Your task to perform on an android device: change keyboard looks Image 0: 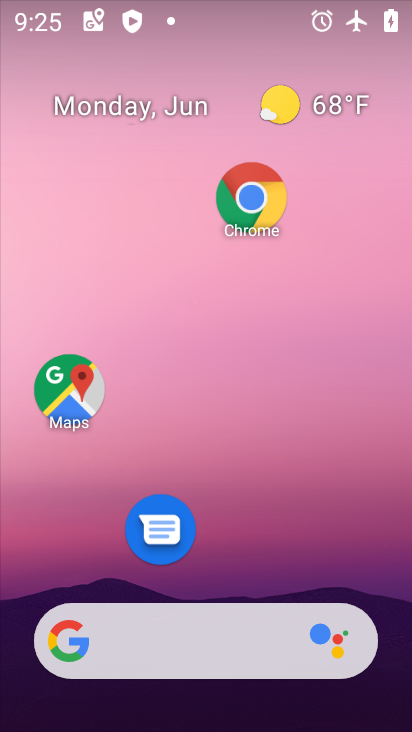
Step 0: drag from (211, 544) to (211, 134)
Your task to perform on an android device: change keyboard looks Image 1: 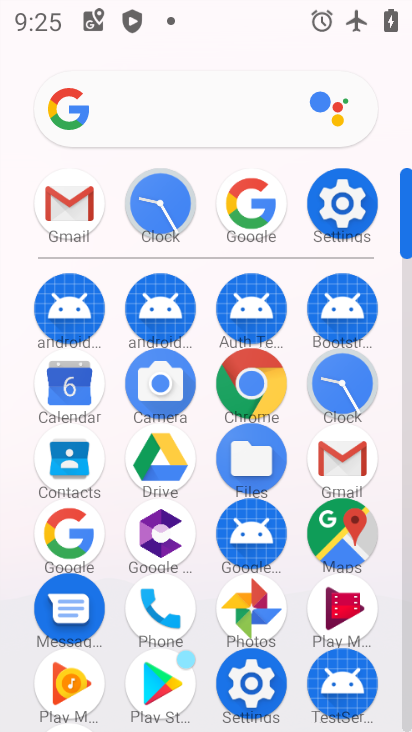
Step 1: click (316, 188)
Your task to perform on an android device: change keyboard looks Image 2: 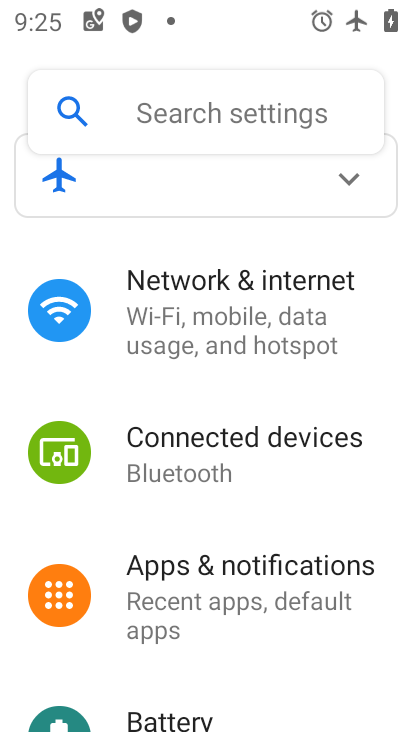
Step 2: drag from (266, 667) to (271, 262)
Your task to perform on an android device: change keyboard looks Image 3: 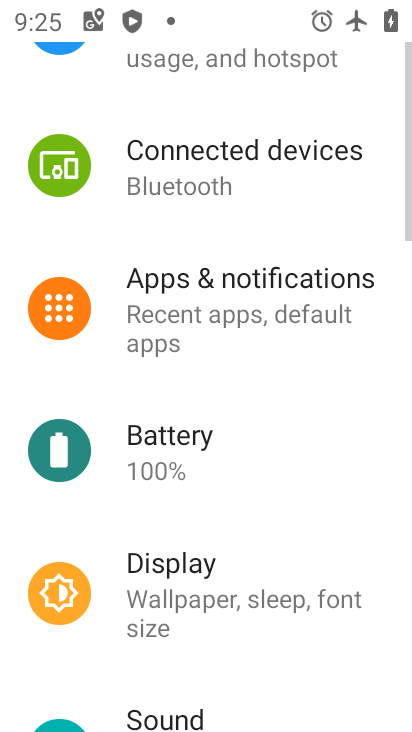
Step 3: drag from (250, 612) to (261, 235)
Your task to perform on an android device: change keyboard looks Image 4: 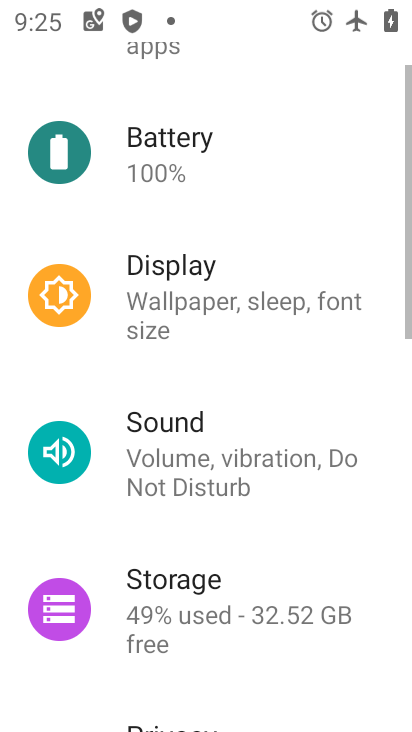
Step 4: drag from (269, 540) to (275, 186)
Your task to perform on an android device: change keyboard looks Image 5: 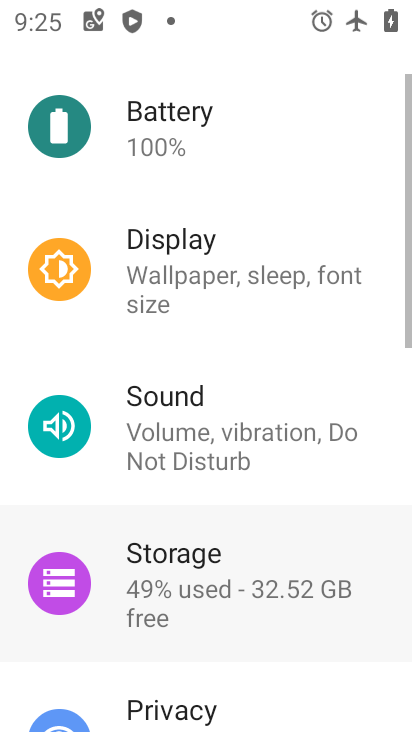
Step 5: drag from (237, 601) to (240, 224)
Your task to perform on an android device: change keyboard looks Image 6: 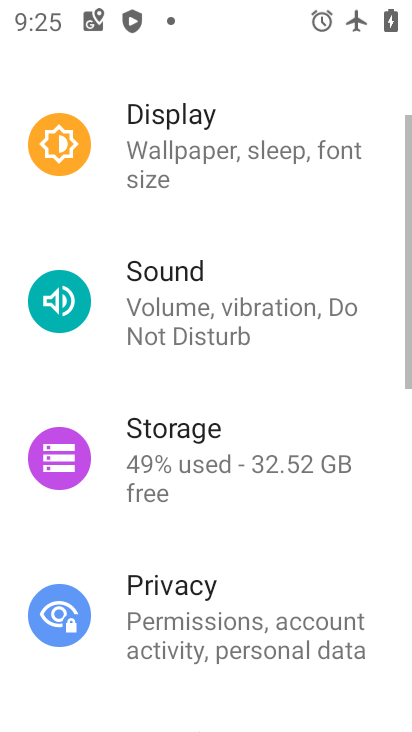
Step 6: drag from (264, 523) to (277, 246)
Your task to perform on an android device: change keyboard looks Image 7: 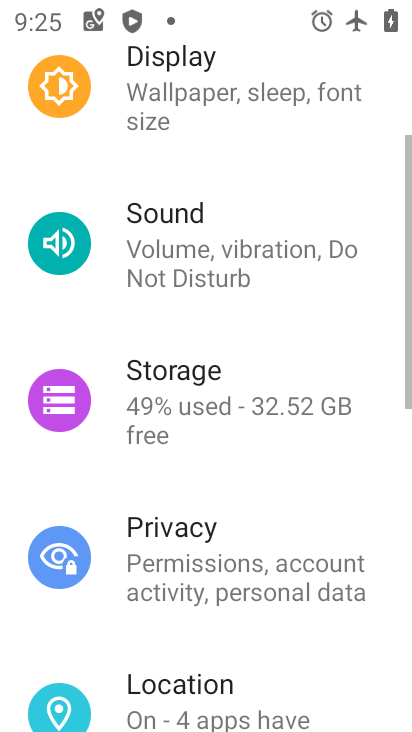
Step 7: drag from (242, 545) to (264, 219)
Your task to perform on an android device: change keyboard looks Image 8: 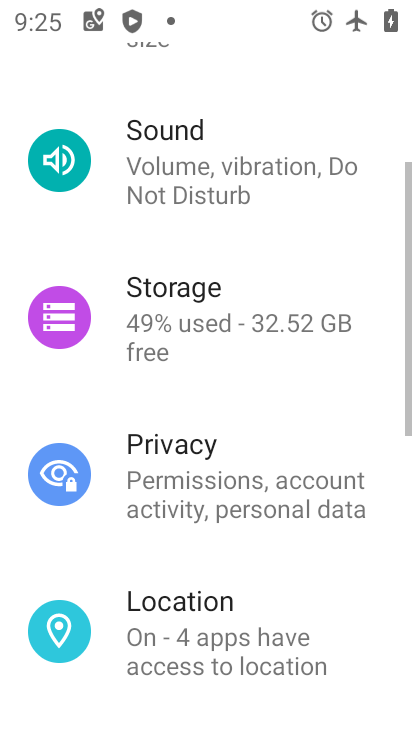
Step 8: drag from (225, 551) to (234, 255)
Your task to perform on an android device: change keyboard looks Image 9: 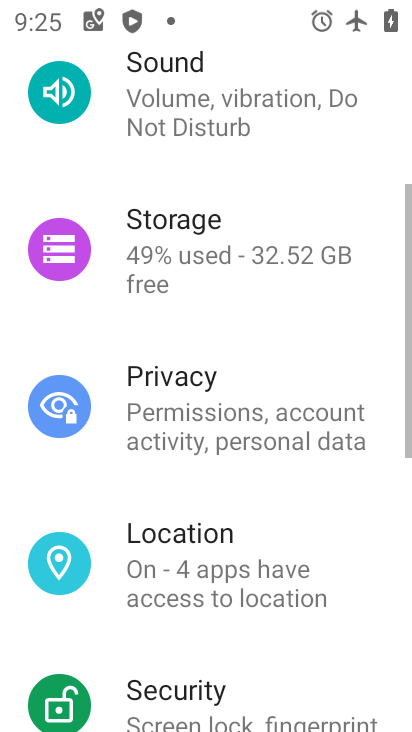
Step 9: drag from (250, 534) to (264, 310)
Your task to perform on an android device: change keyboard looks Image 10: 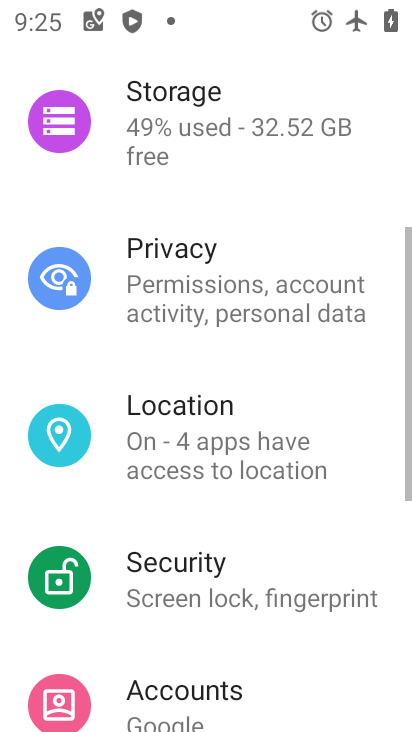
Step 10: drag from (211, 652) to (228, 285)
Your task to perform on an android device: change keyboard looks Image 11: 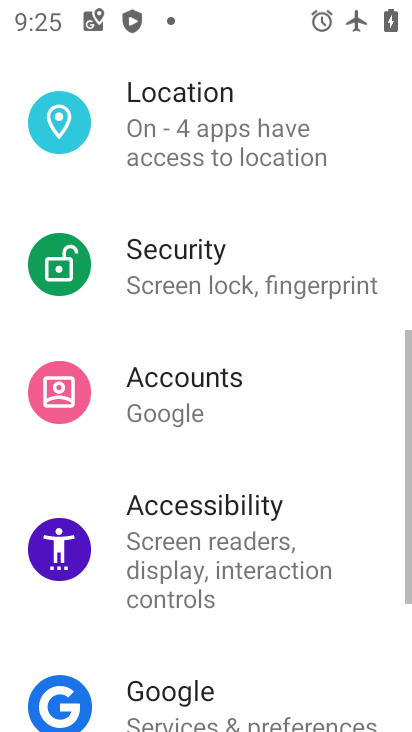
Step 11: drag from (255, 421) to (255, 295)
Your task to perform on an android device: change keyboard looks Image 12: 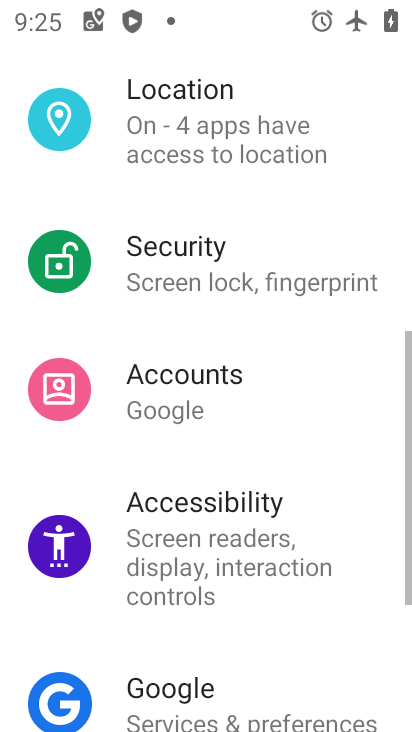
Step 12: drag from (245, 584) to (257, 298)
Your task to perform on an android device: change keyboard looks Image 13: 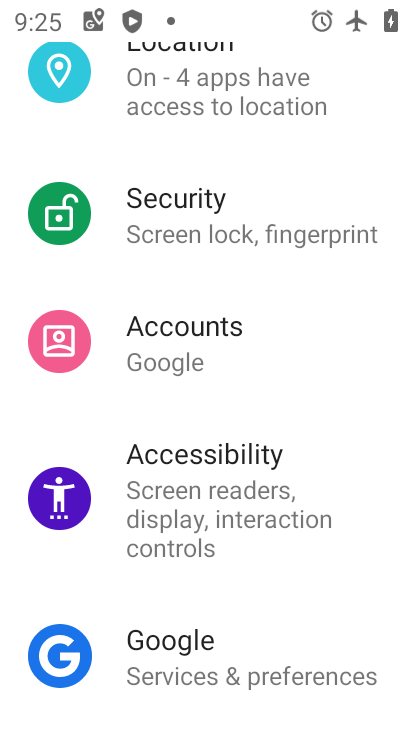
Step 13: drag from (257, 481) to (257, 200)
Your task to perform on an android device: change keyboard looks Image 14: 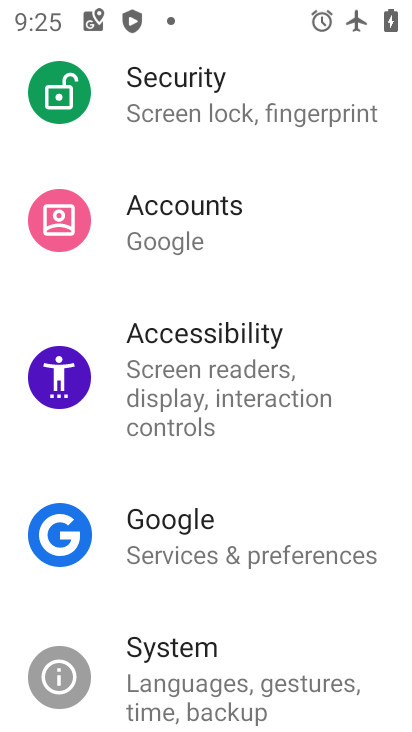
Step 14: drag from (280, 544) to (276, 195)
Your task to perform on an android device: change keyboard looks Image 15: 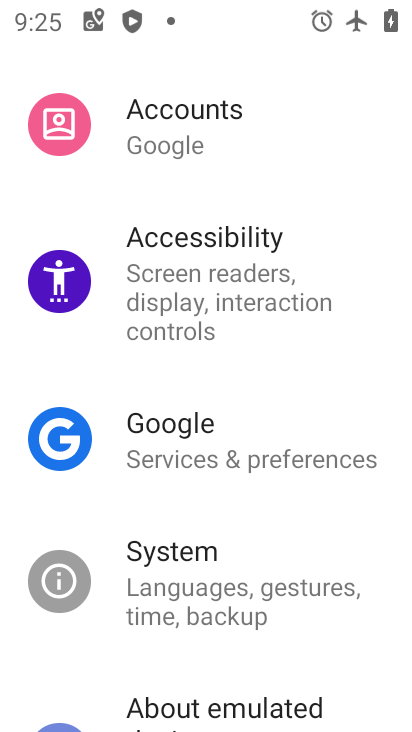
Step 15: drag from (247, 500) to (247, 226)
Your task to perform on an android device: change keyboard looks Image 16: 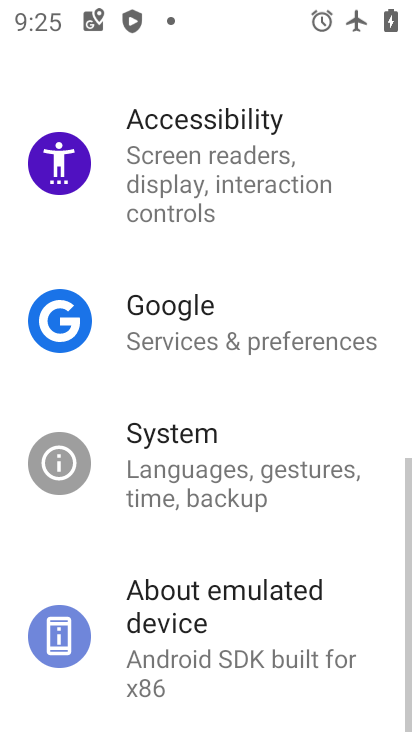
Step 16: drag from (239, 540) to (227, 234)
Your task to perform on an android device: change keyboard looks Image 17: 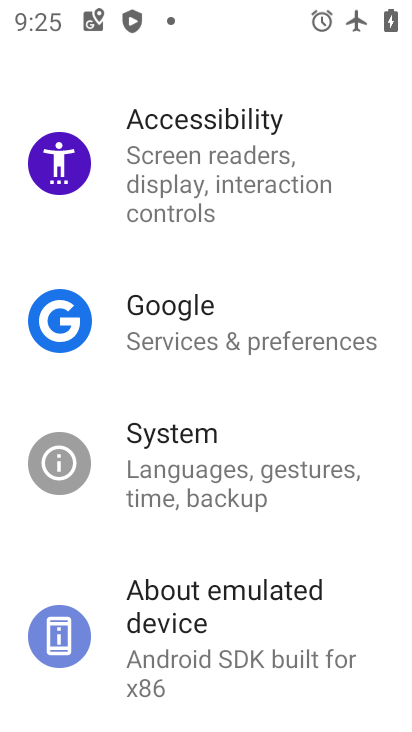
Step 17: click (195, 509)
Your task to perform on an android device: change keyboard looks Image 18: 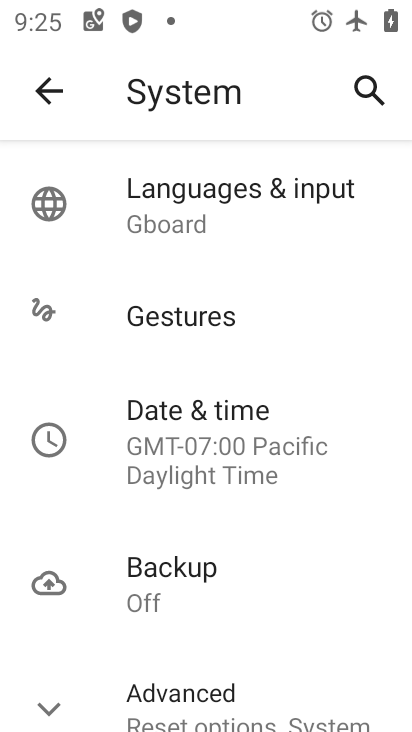
Step 18: click (191, 219)
Your task to perform on an android device: change keyboard looks Image 19: 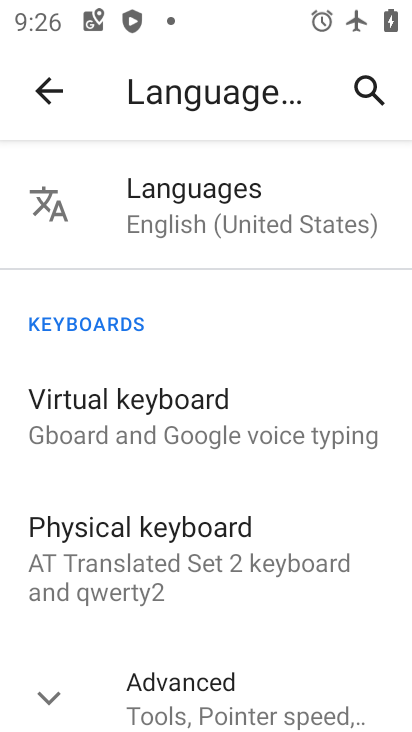
Step 19: click (150, 389)
Your task to perform on an android device: change keyboard looks Image 20: 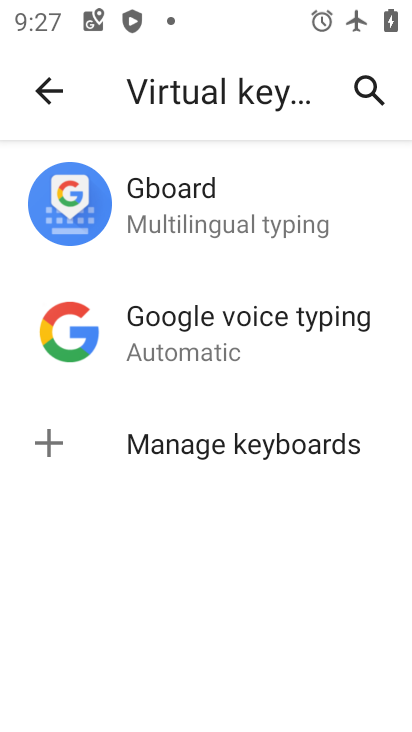
Step 20: click (125, 225)
Your task to perform on an android device: change keyboard looks Image 21: 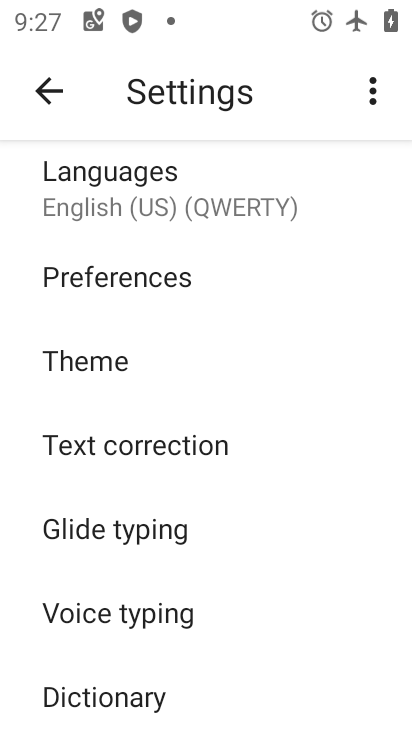
Step 21: click (160, 348)
Your task to perform on an android device: change keyboard looks Image 22: 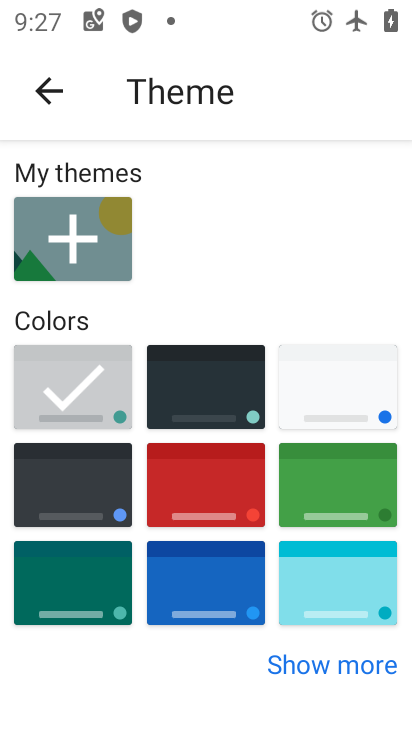
Step 22: click (195, 371)
Your task to perform on an android device: change keyboard looks Image 23: 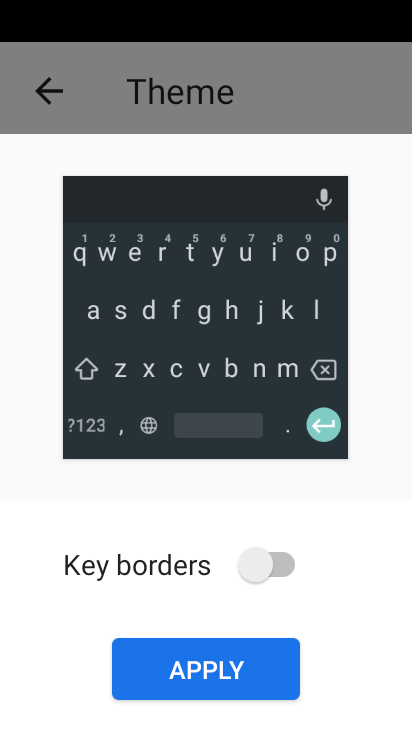
Step 23: click (181, 671)
Your task to perform on an android device: change keyboard looks Image 24: 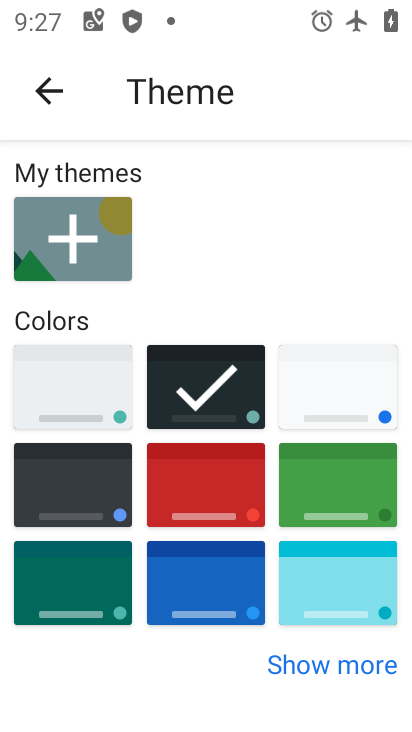
Step 24: task complete